Your task to perform on an android device: clear all cookies in the chrome app Image 0: 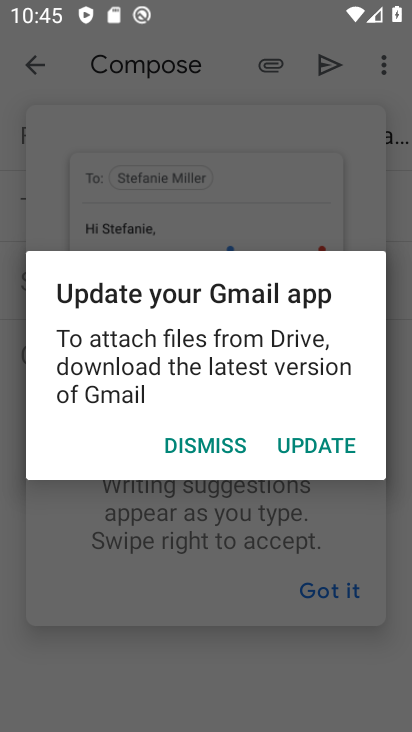
Step 0: press home button
Your task to perform on an android device: clear all cookies in the chrome app Image 1: 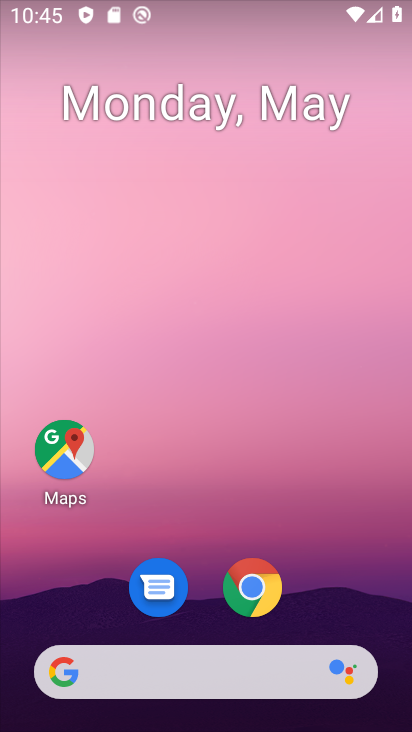
Step 1: drag from (380, 608) to (370, 269)
Your task to perform on an android device: clear all cookies in the chrome app Image 2: 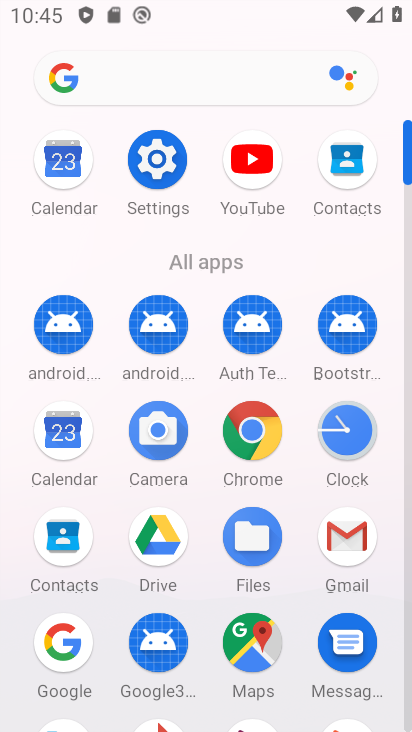
Step 2: click (271, 432)
Your task to perform on an android device: clear all cookies in the chrome app Image 3: 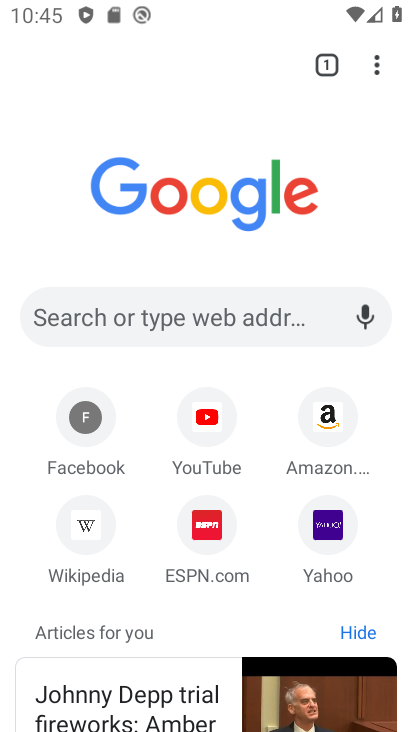
Step 3: click (374, 77)
Your task to perform on an android device: clear all cookies in the chrome app Image 4: 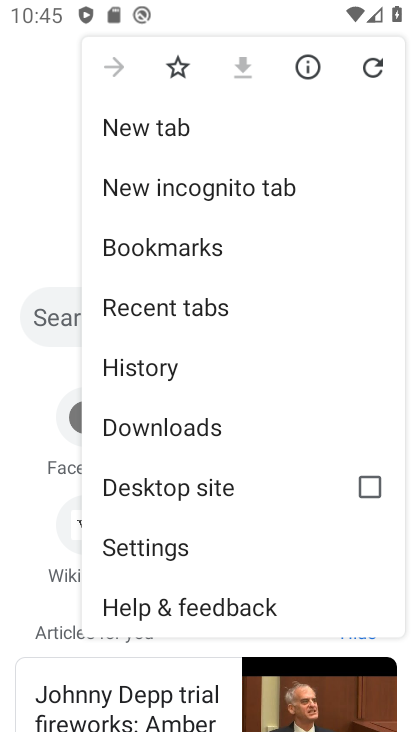
Step 4: drag from (242, 576) to (229, 330)
Your task to perform on an android device: clear all cookies in the chrome app Image 5: 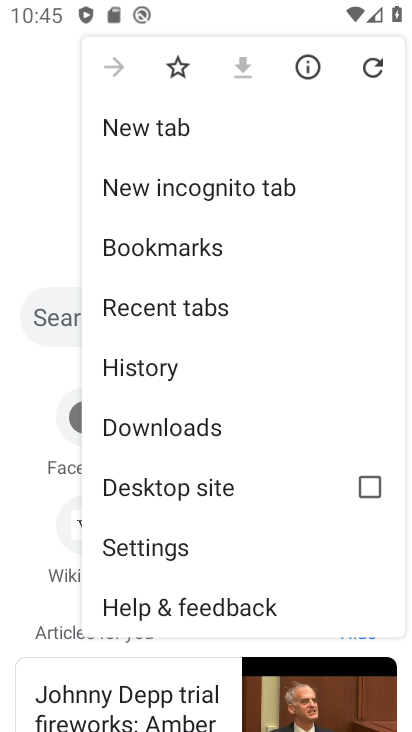
Step 5: click (202, 368)
Your task to perform on an android device: clear all cookies in the chrome app Image 6: 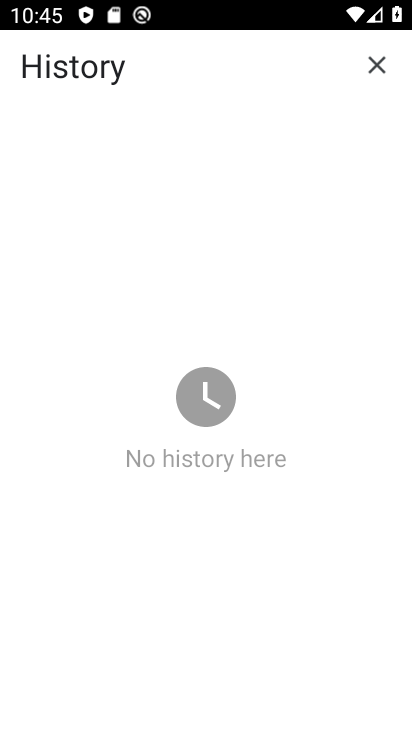
Step 6: task complete